Your task to perform on an android device: see sites visited before in the chrome app Image 0: 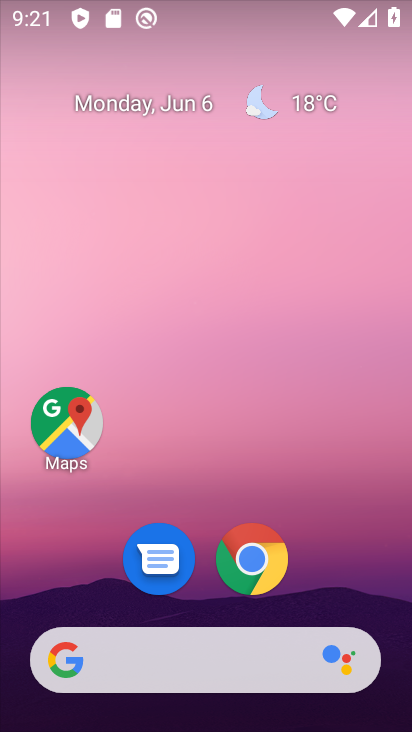
Step 0: click (250, 558)
Your task to perform on an android device: see sites visited before in the chrome app Image 1: 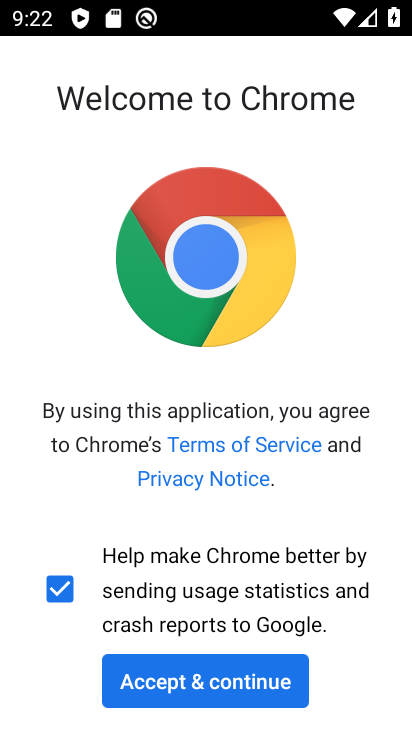
Step 1: click (206, 675)
Your task to perform on an android device: see sites visited before in the chrome app Image 2: 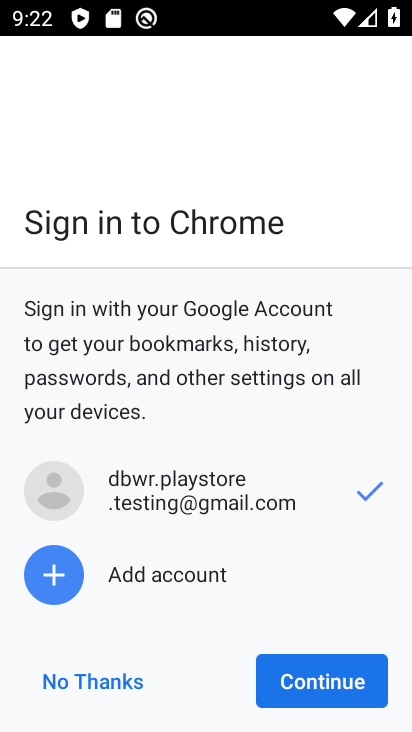
Step 2: click (348, 673)
Your task to perform on an android device: see sites visited before in the chrome app Image 3: 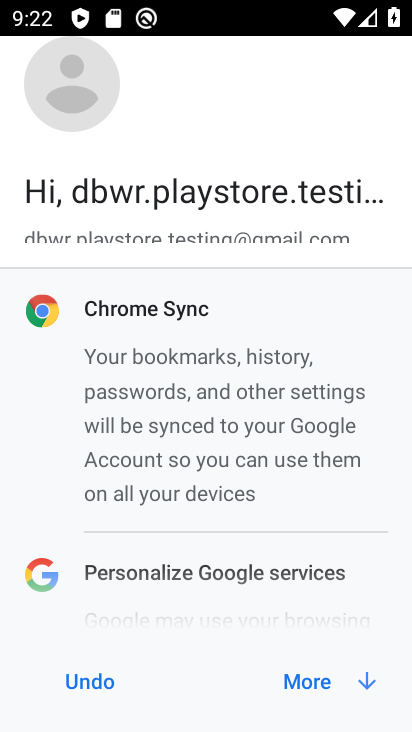
Step 3: click (314, 676)
Your task to perform on an android device: see sites visited before in the chrome app Image 4: 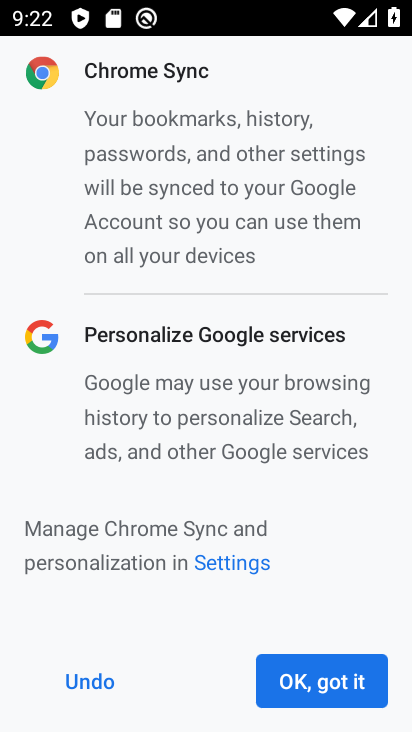
Step 4: click (314, 676)
Your task to perform on an android device: see sites visited before in the chrome app Image 5: 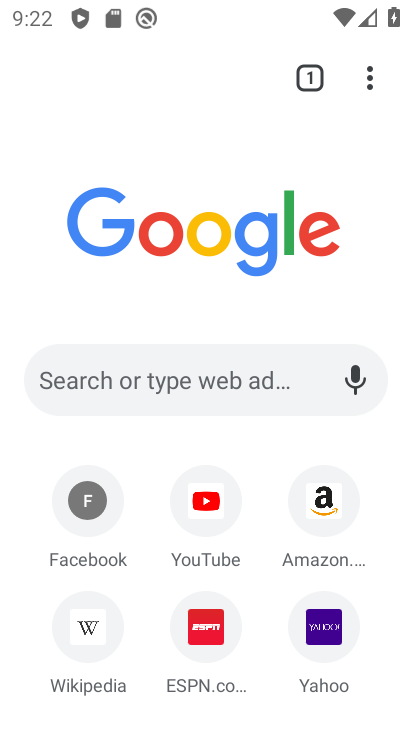
Step 5: click (370, 85)
Your task to perform on an android device: see sites visited before in the chrome app Image 6: 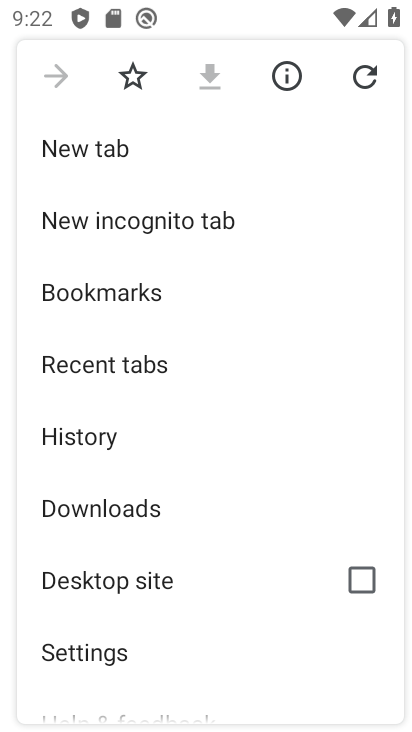
Step 6: click (85, 435)
Your task to perform on an android device: see sites visited before in the chrome app Image 7: 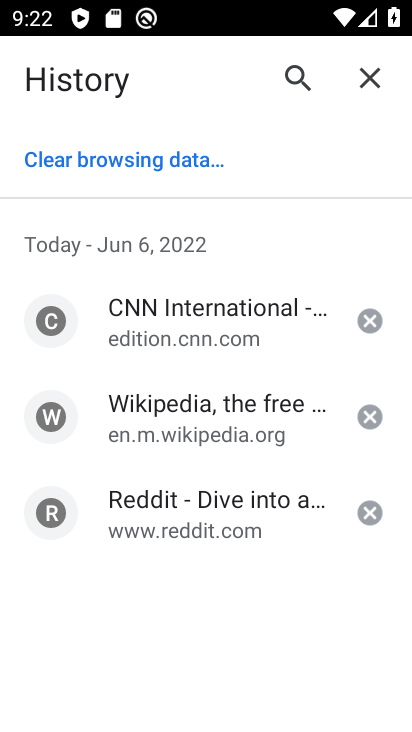
Step 7: task complete